Your task to perform on an android device: manage bookmarks in the chrome app Image 0: 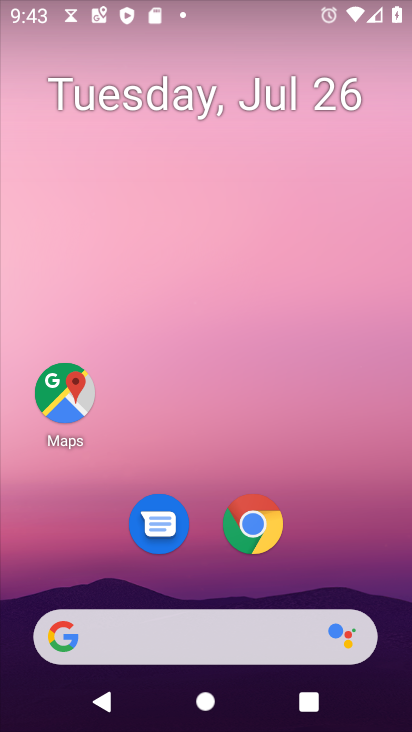
Step 0: click (247, 535)
Your task to perform on an android device: manage bookmarks in the chrome app Image 1: 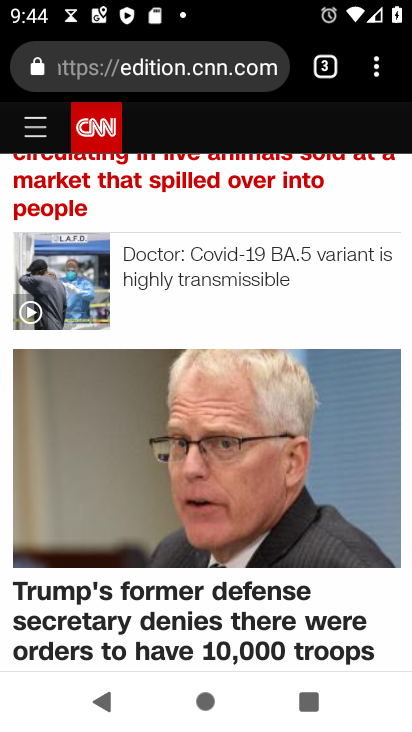
Step 1: drag from (377, 64) to (213, 251)
Your task to perform on an android device: manage bookmarks in the chrome app Image 2: 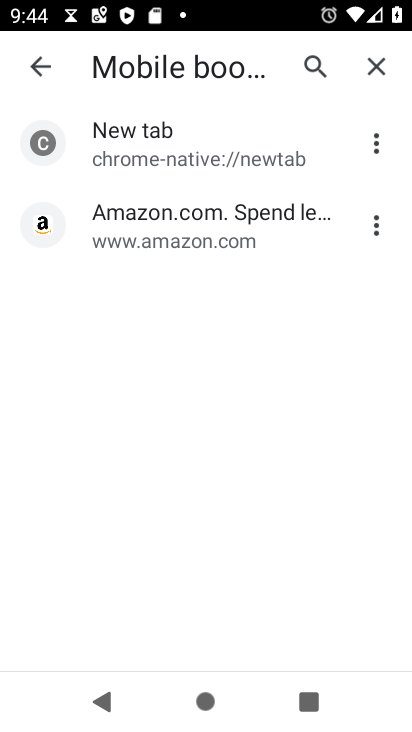
Step 2: click (368, 221)
Your task to perform on an android device: manage bookmarks in the chrome app Image 3: 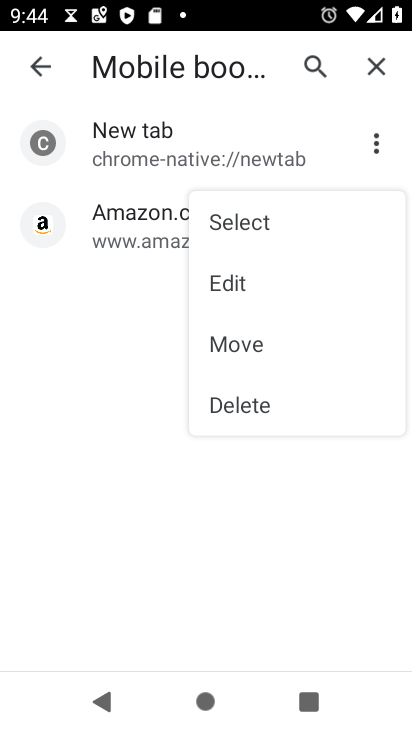
Step 3: click (242, 405)
Your task to perform on an android device: manage bookmarks in the chrome app Image 4: 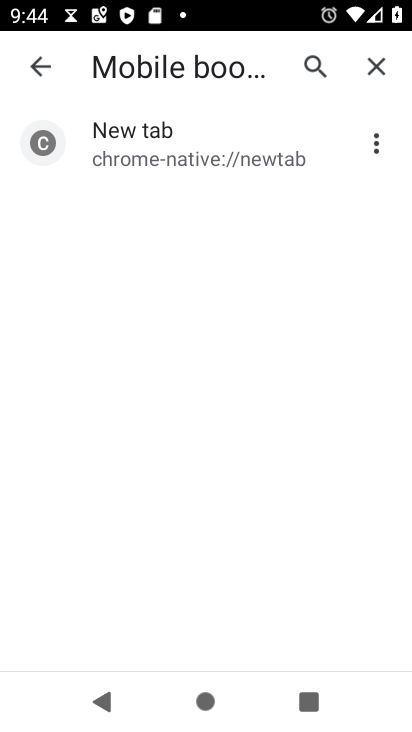
Step 4: task complete